Your task to perform on an android device: Do I have any events today? Image 0: 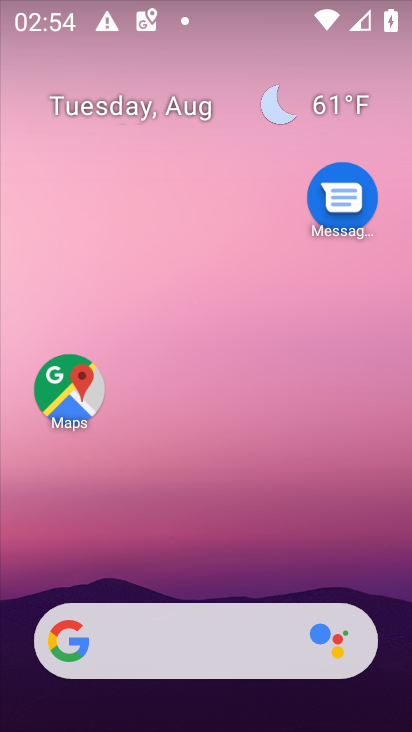
Step 0: drag from (233, 575) to (234, 56)
Your task to perform on an android device: Do I have any events today? Image 1: 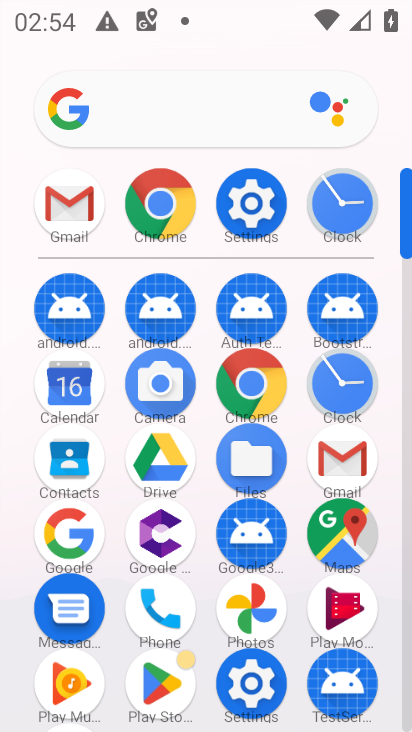
Step 1: click (61, 410)
Your task to perform on an android device: Do I have any events today? Image 2: 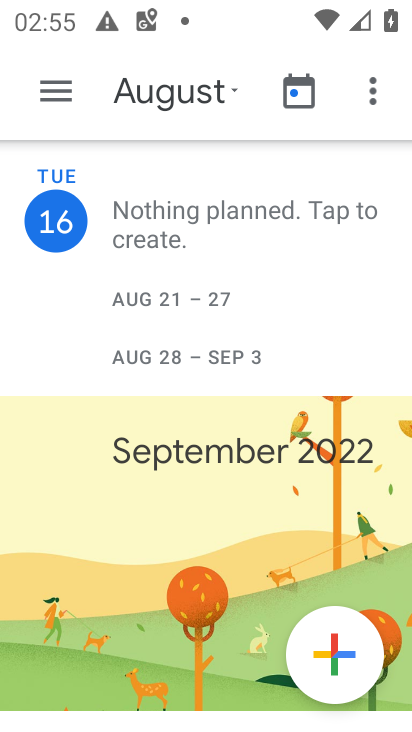
Step 2: task complete